Your task to perform on an android device: Search for the ikea sjalv lamp Image 0: 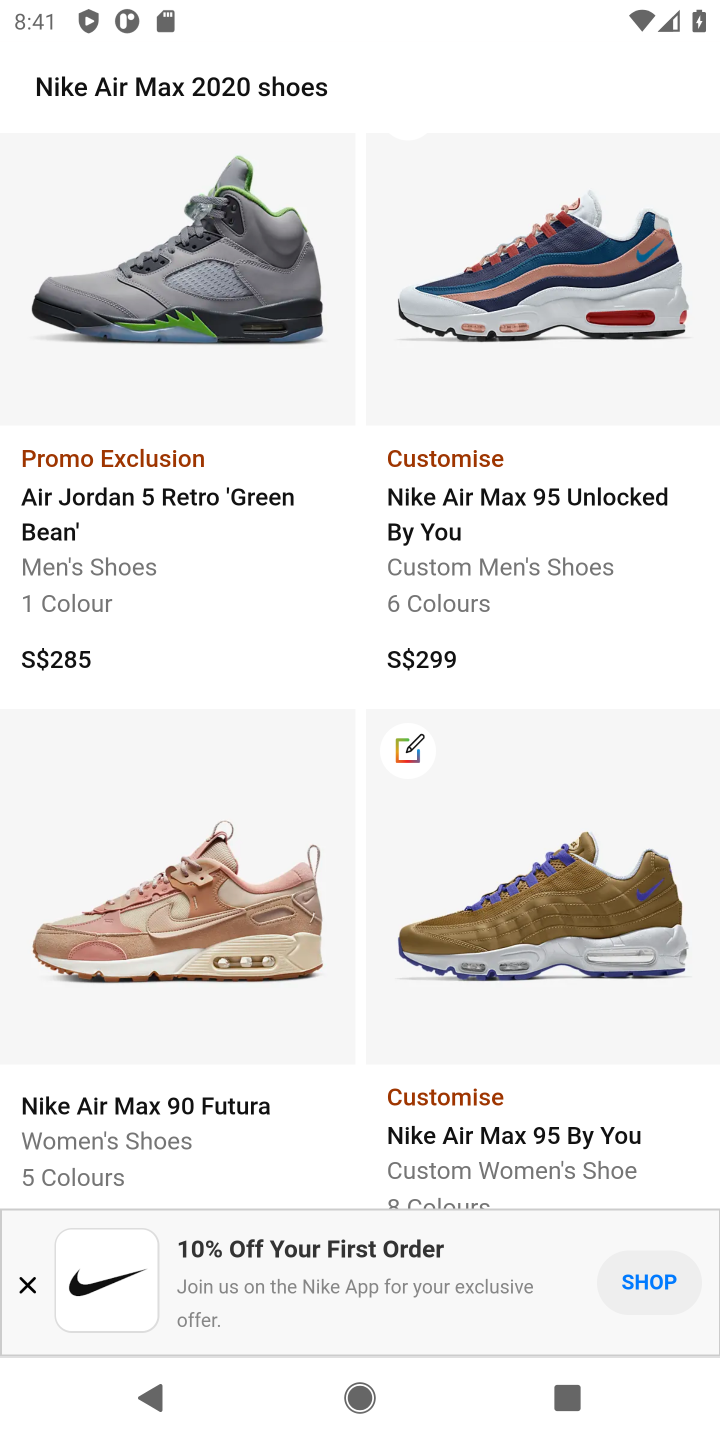
Step 0: press home button
Your task to perform on an android device: Search for the ikea sjalv lamp Image 1: 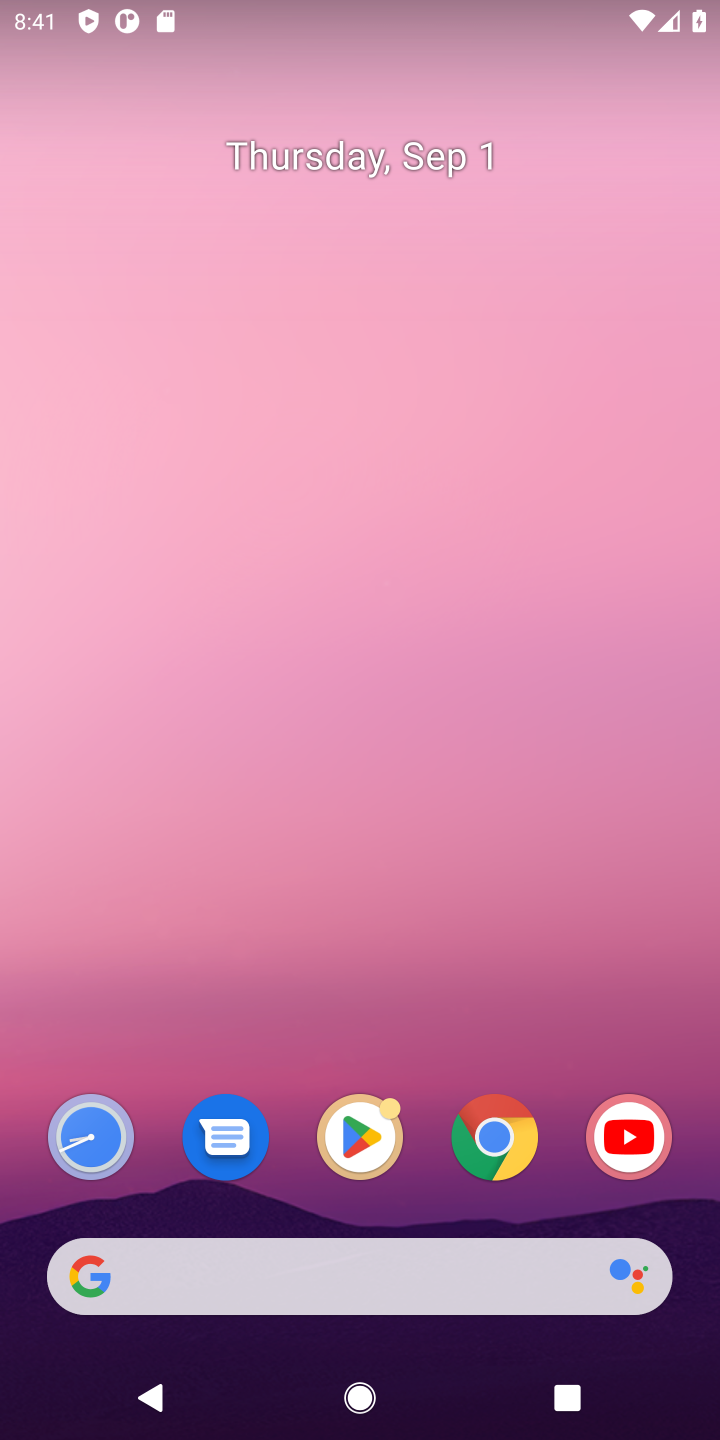
Step 1: drag from (416, 787) to (408, 17)
Your task to perform on an android device: Search for the ikea sjalv lamp Image 2: 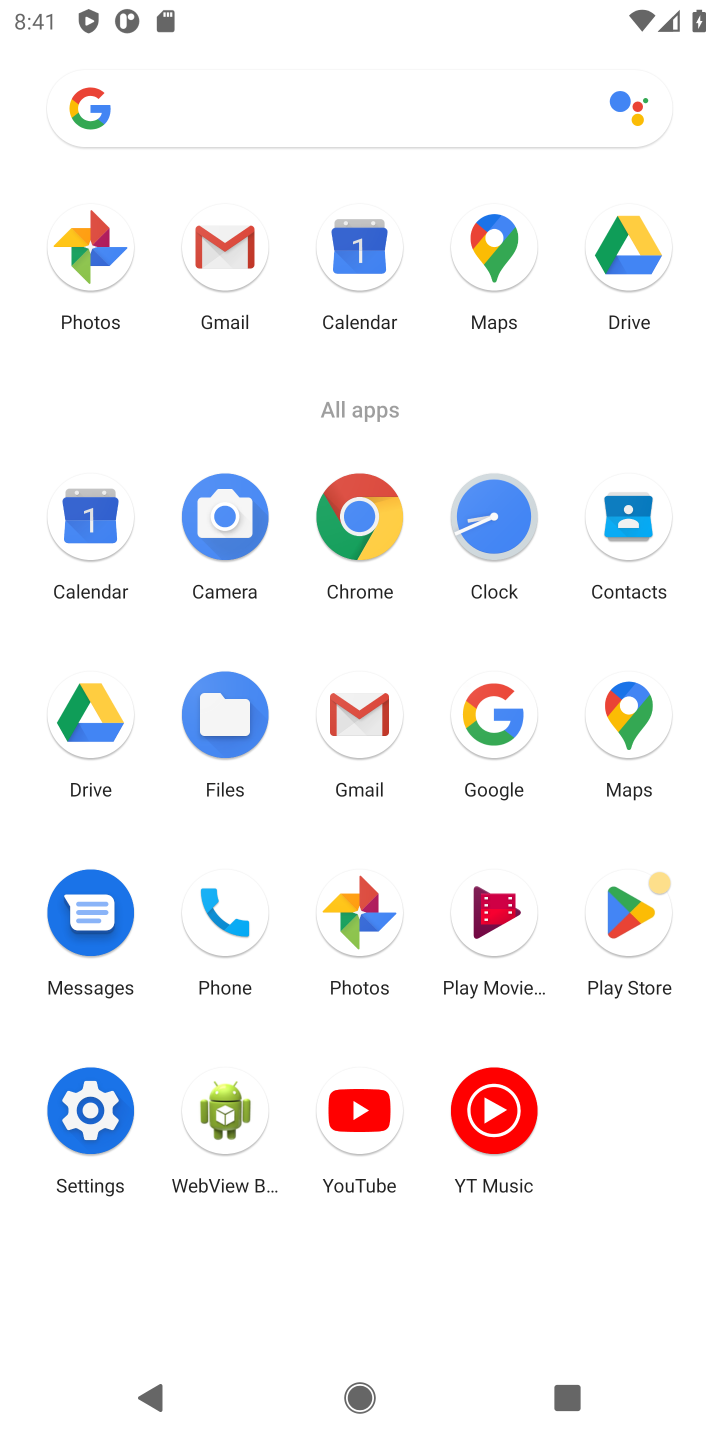
Step 2: click (363, 501)
Your task to perform on an android device: Search for the ikea sjalv lamp Image 3: 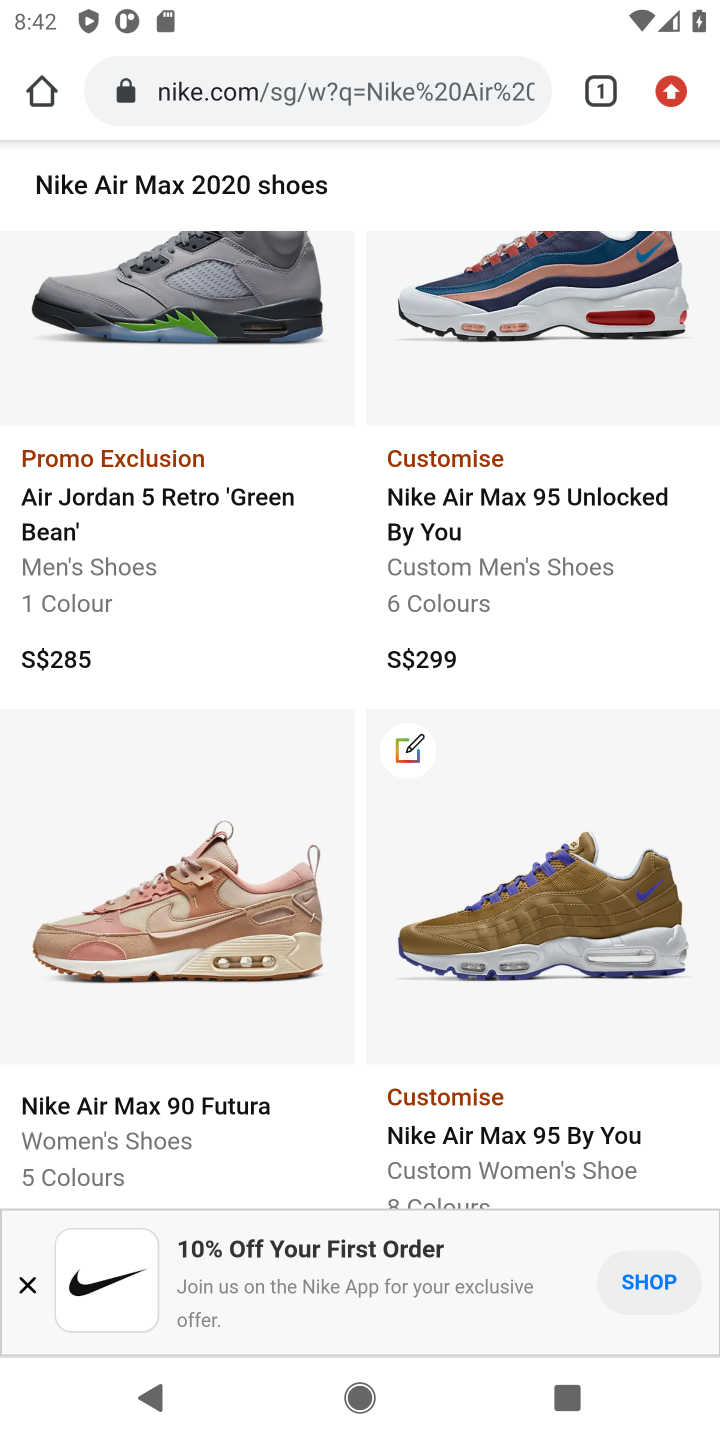
Step 3: click (599, 85)
Your task to perform on an android device: Search for the ikea sjalv lamp Image 4: 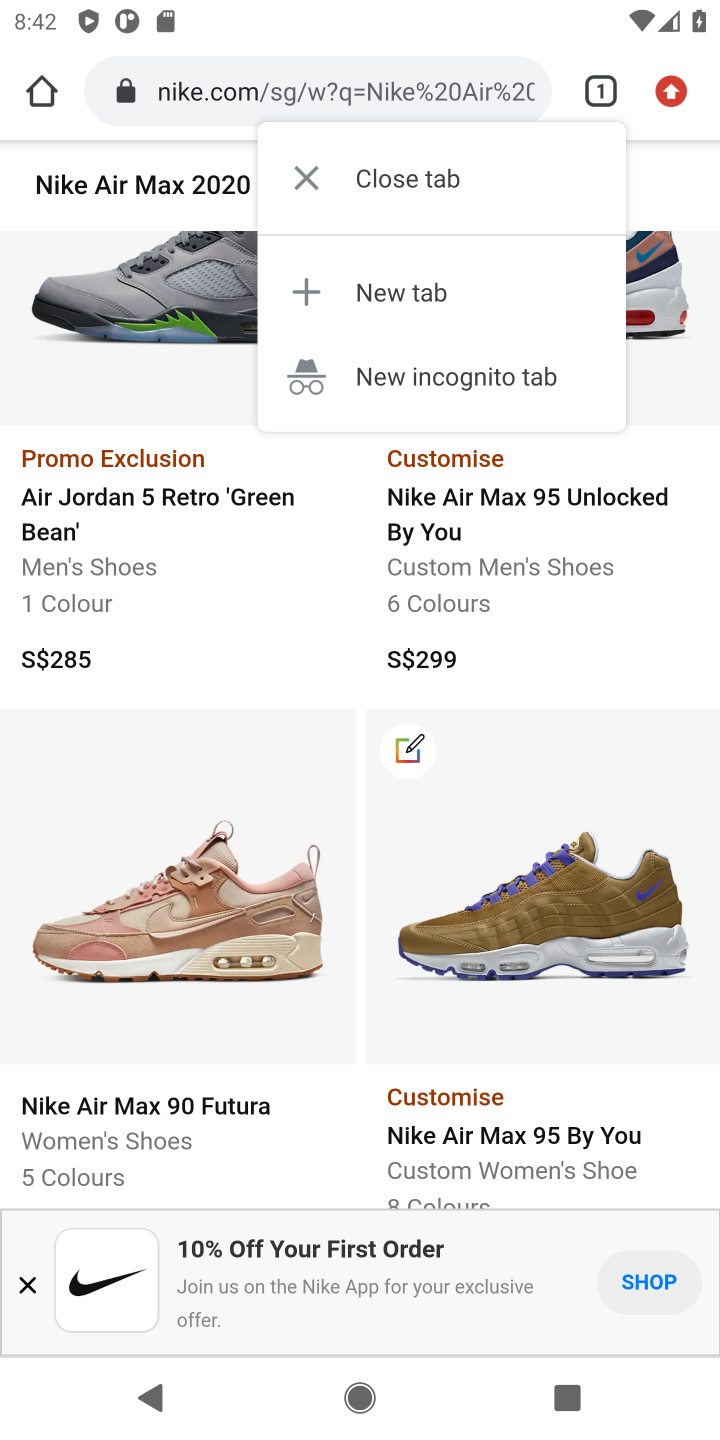
Step 4: click (309, 181)
Your task to perform on an android device: Search for the ikea sjalv lamp Image 5: 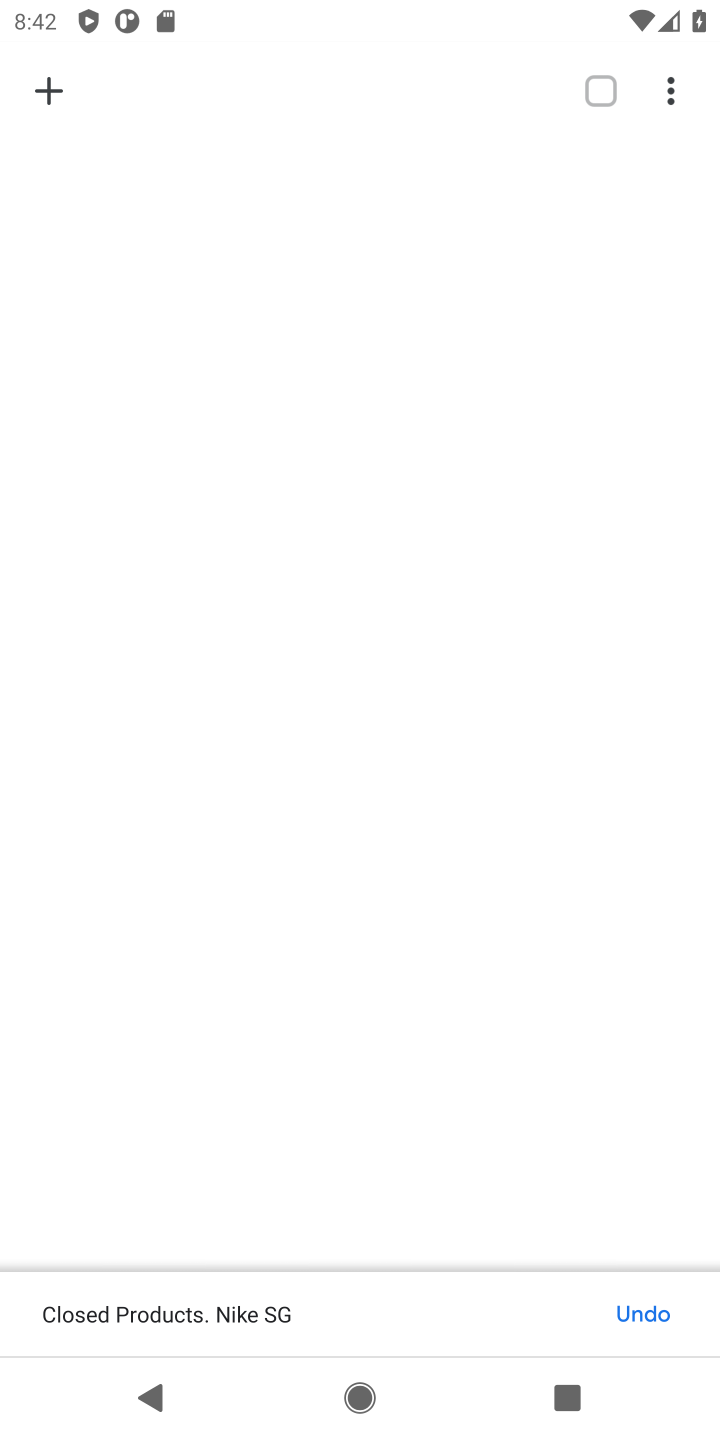
Step 5: click (59, 87)
Your task to perform on an android device: Search for the ikea sjalv lamp Image 6: 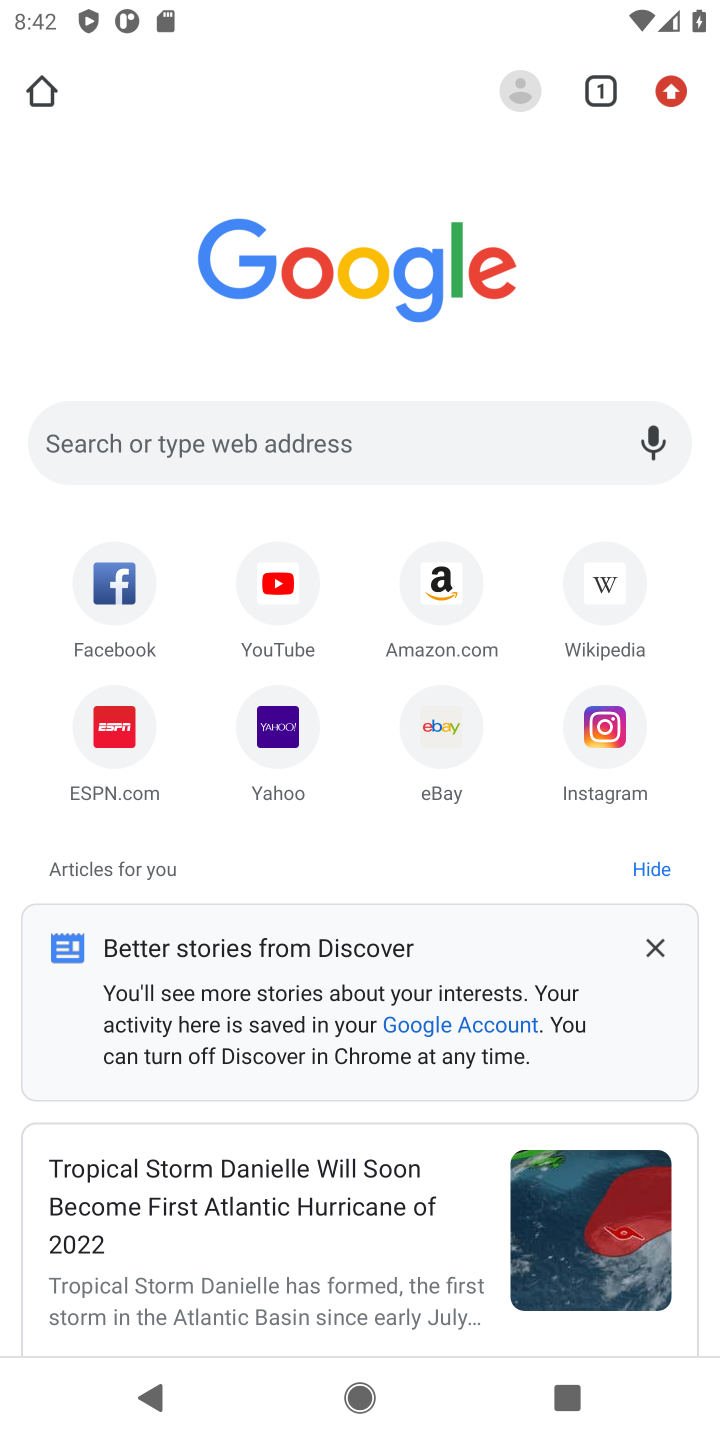
Step 6: type "ikea sjalv lamp"
Your task to perform on an android device: Search for the ikea sjalv lamp Image 7: 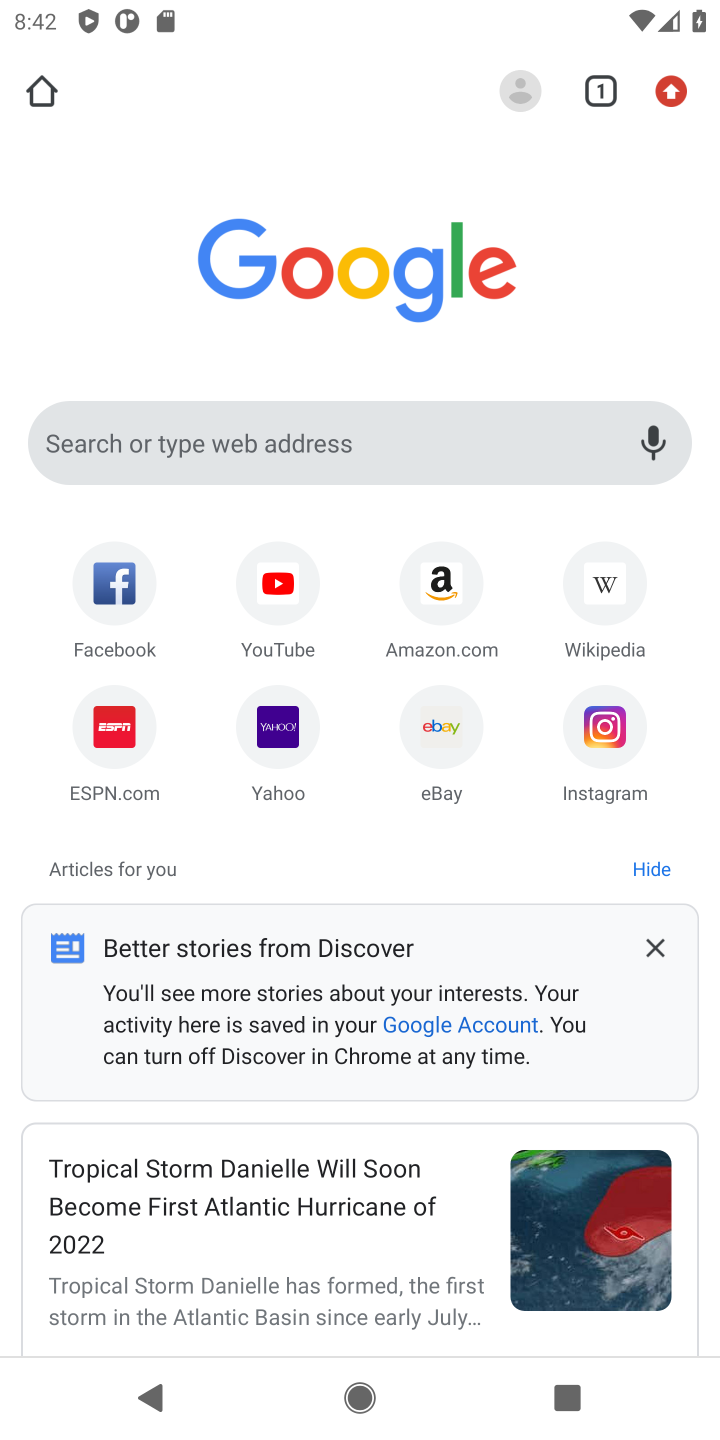
Step 7: click (182, 438)
Your task to perform on an android device: Search for the ikea sjalv lamp Image 8: 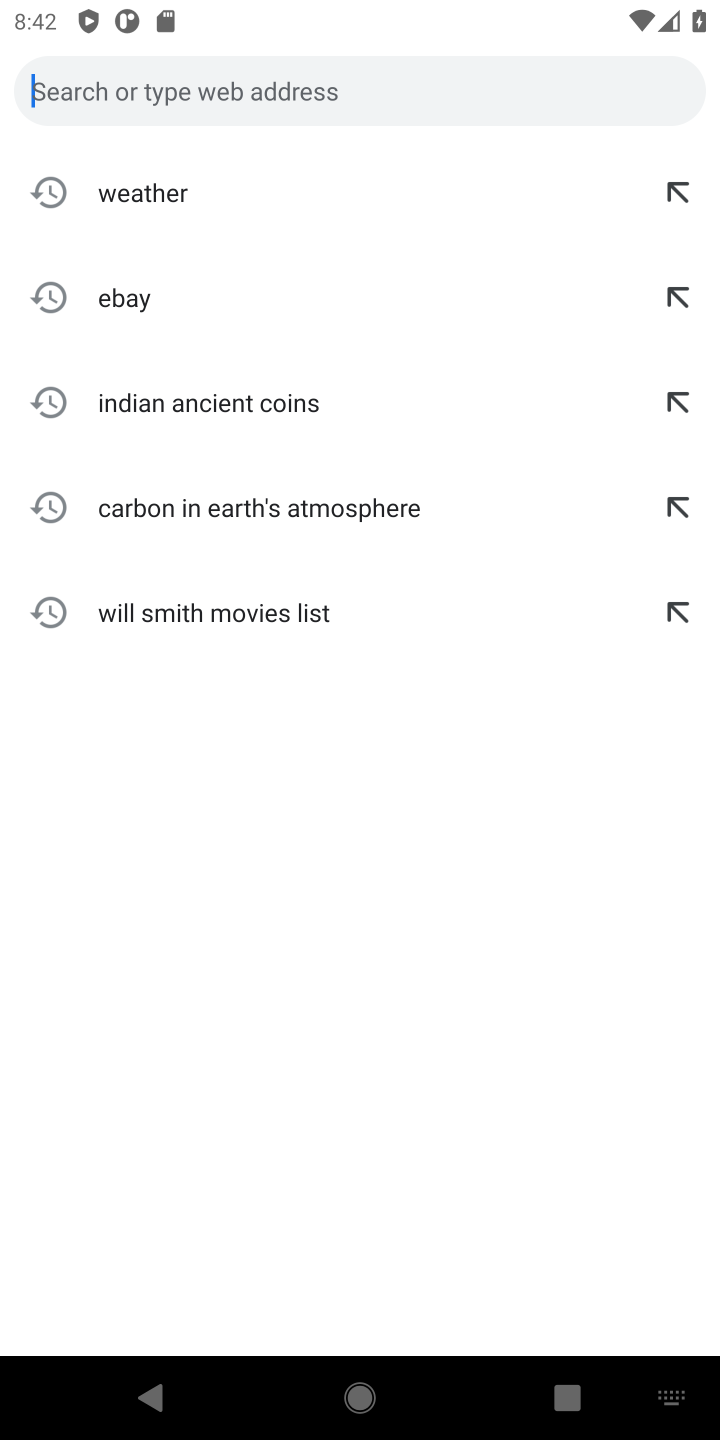
Step 8: type "ikea sjalv lamp"
Your task to perform on an android device: Search for the ikea sjalv lamp Image 9: 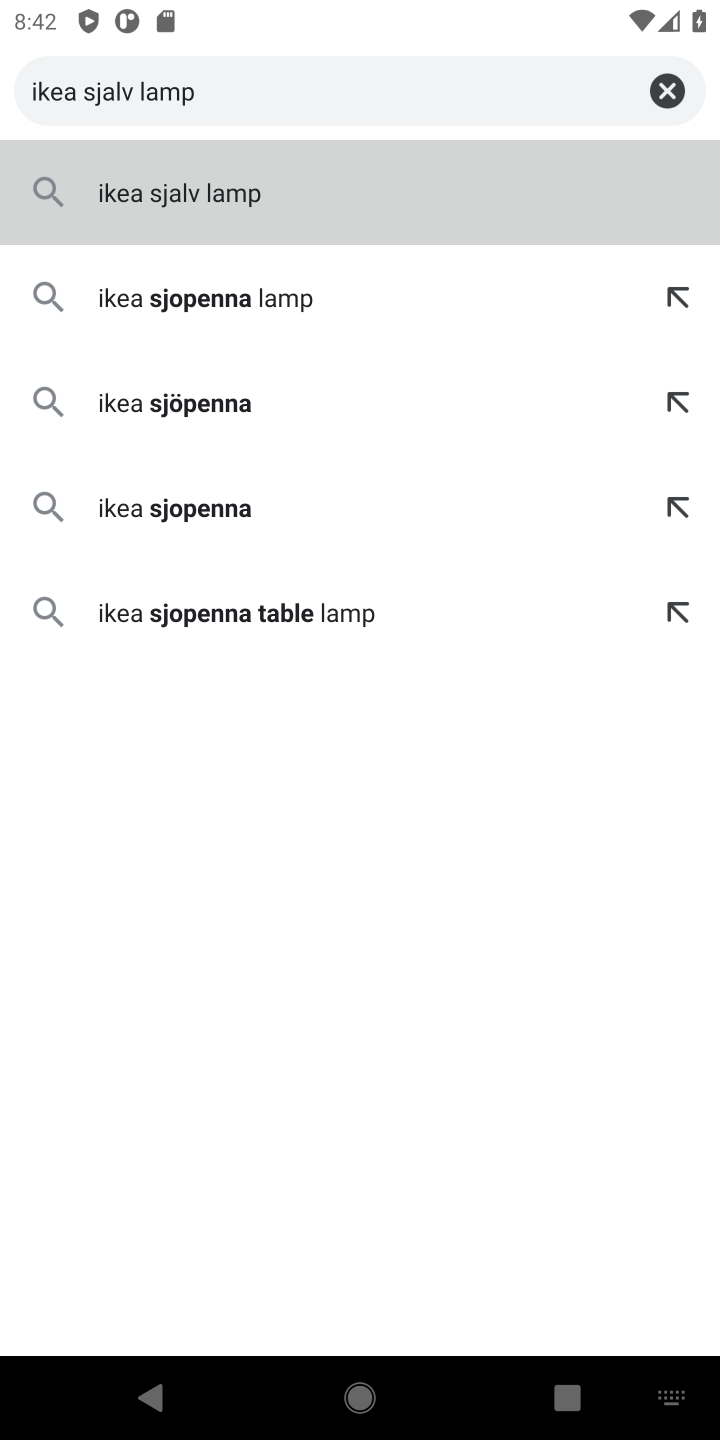
Step 9: click (217, 186)
Your task to perform on an android device: Search for the ikea sjalv lamp Image 10: 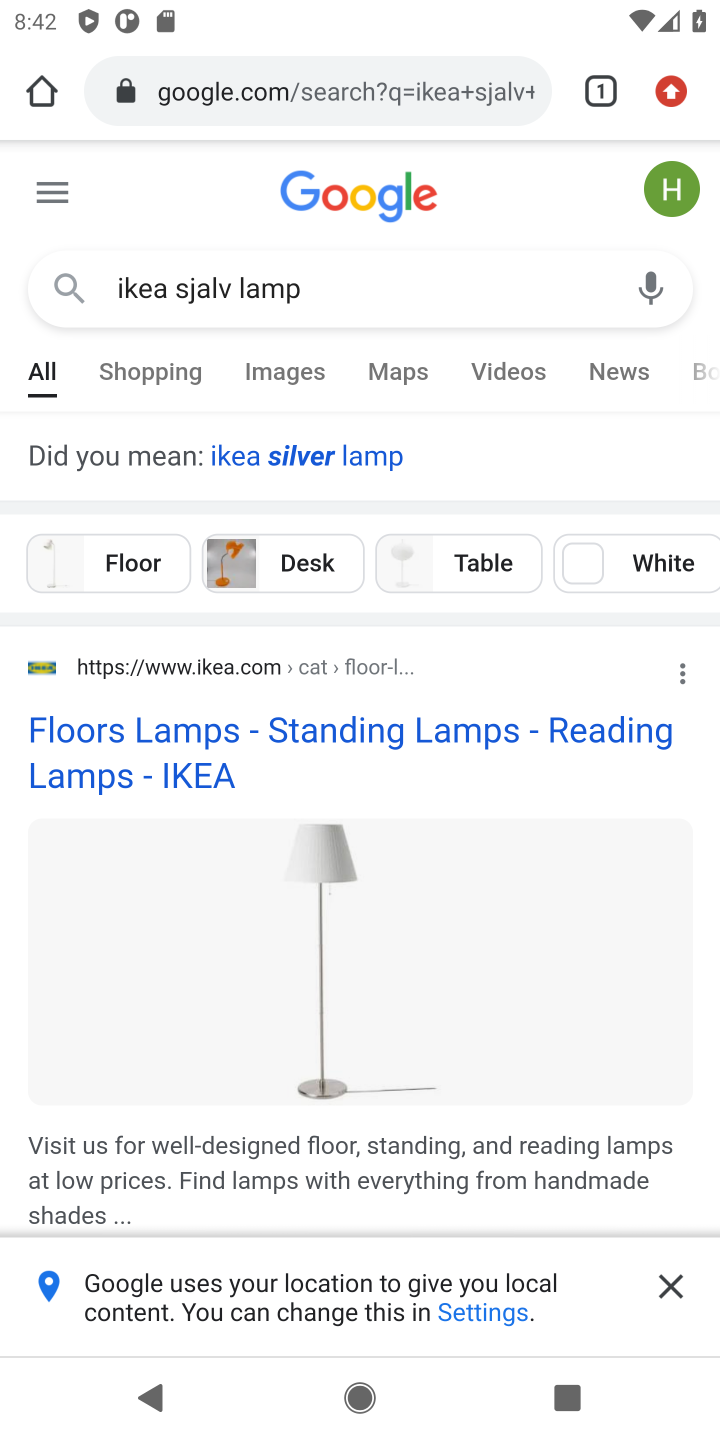
Step 10: drag from (299, 1173) to (268, 683)
Your task to perform on an android device: Search for the ikea sjalv lamp Image 11: 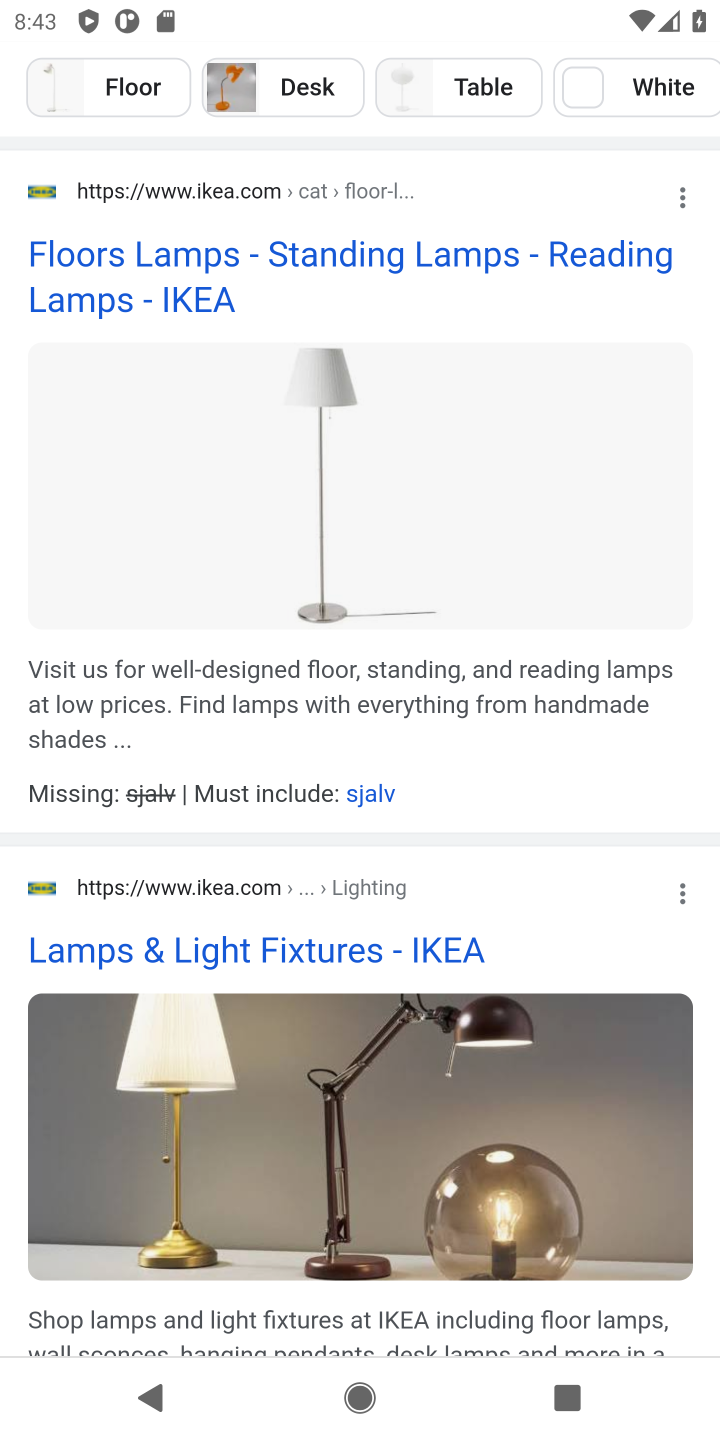
Step 11: drag from (370, 1044) to (318, 463)
Your task to perform on an android device: Search for the ikea sjalv lamp Image 12: 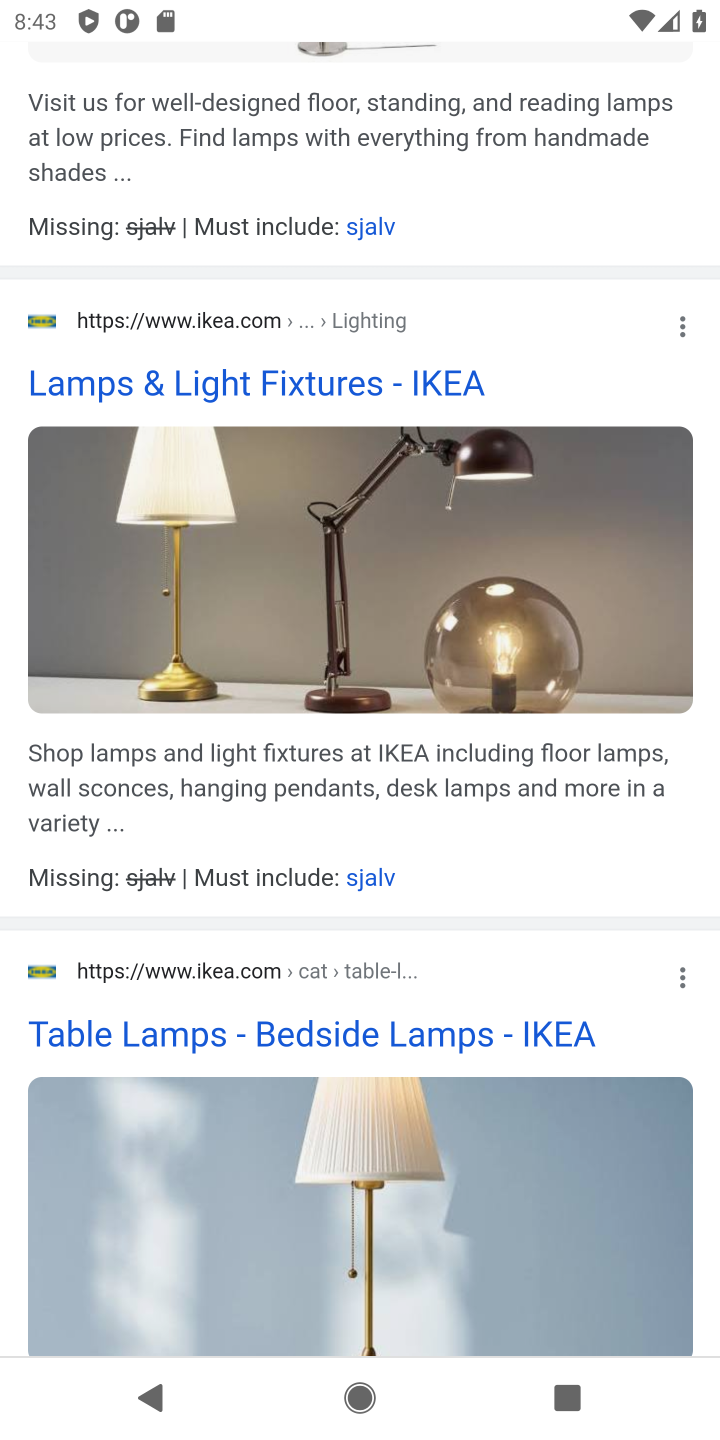
Step 12: drag from (179, 575) to (272, 1069)
Your task to perform on an android device: Search for the ikea sjalv lamp Image 13: 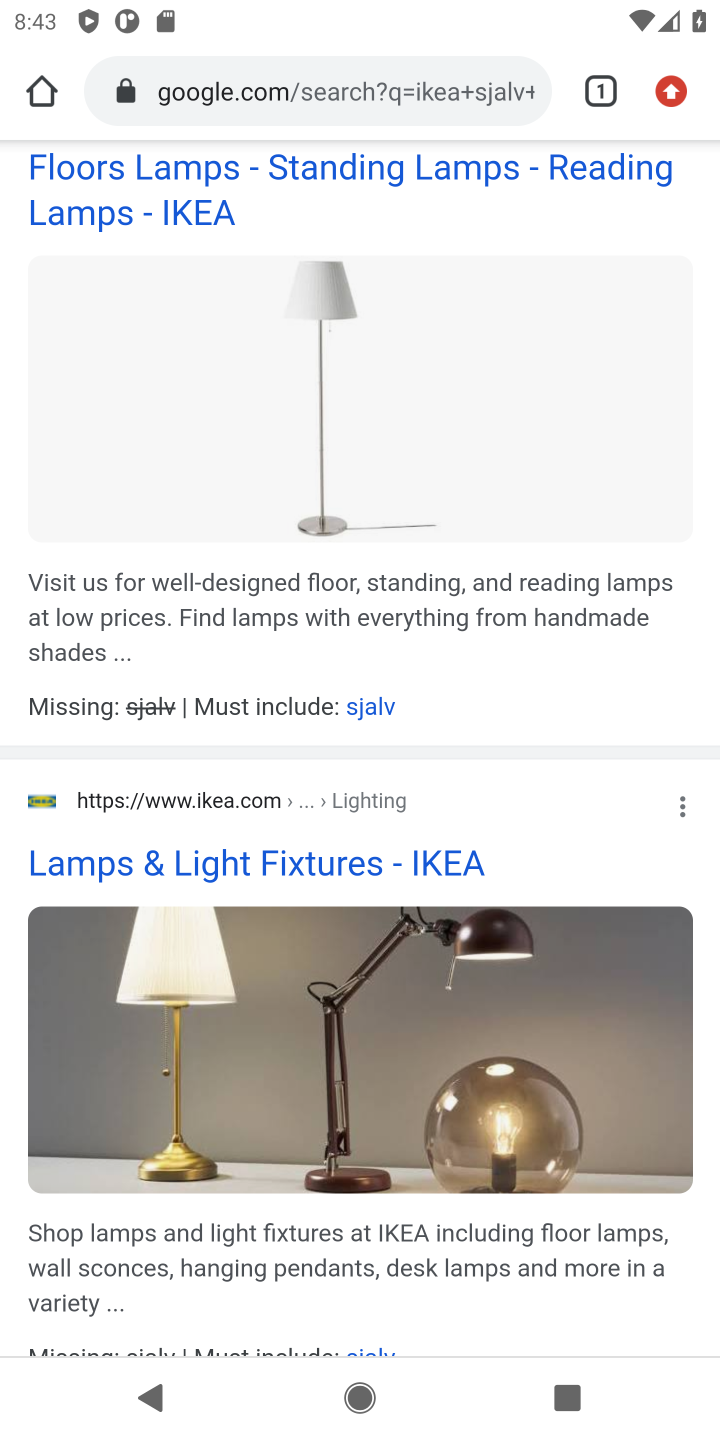
Step 13: drag from (353, 611) to (481, 1148)
Your task to perform on an android device: Search for the ikea sjalv lamp Image 14: 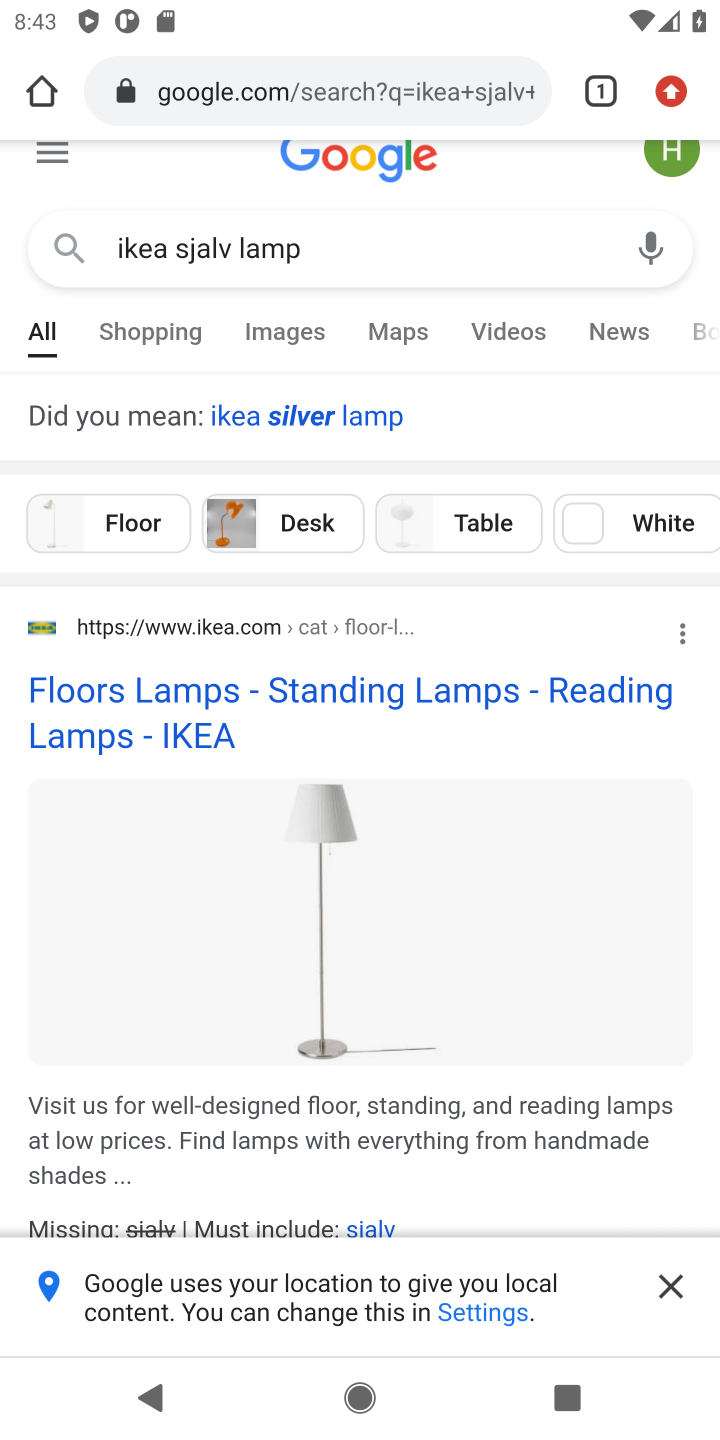
Step 14: click (153, 738)
Your task to perform on an android device: Search for the ikea sjalv lamp Image 15: 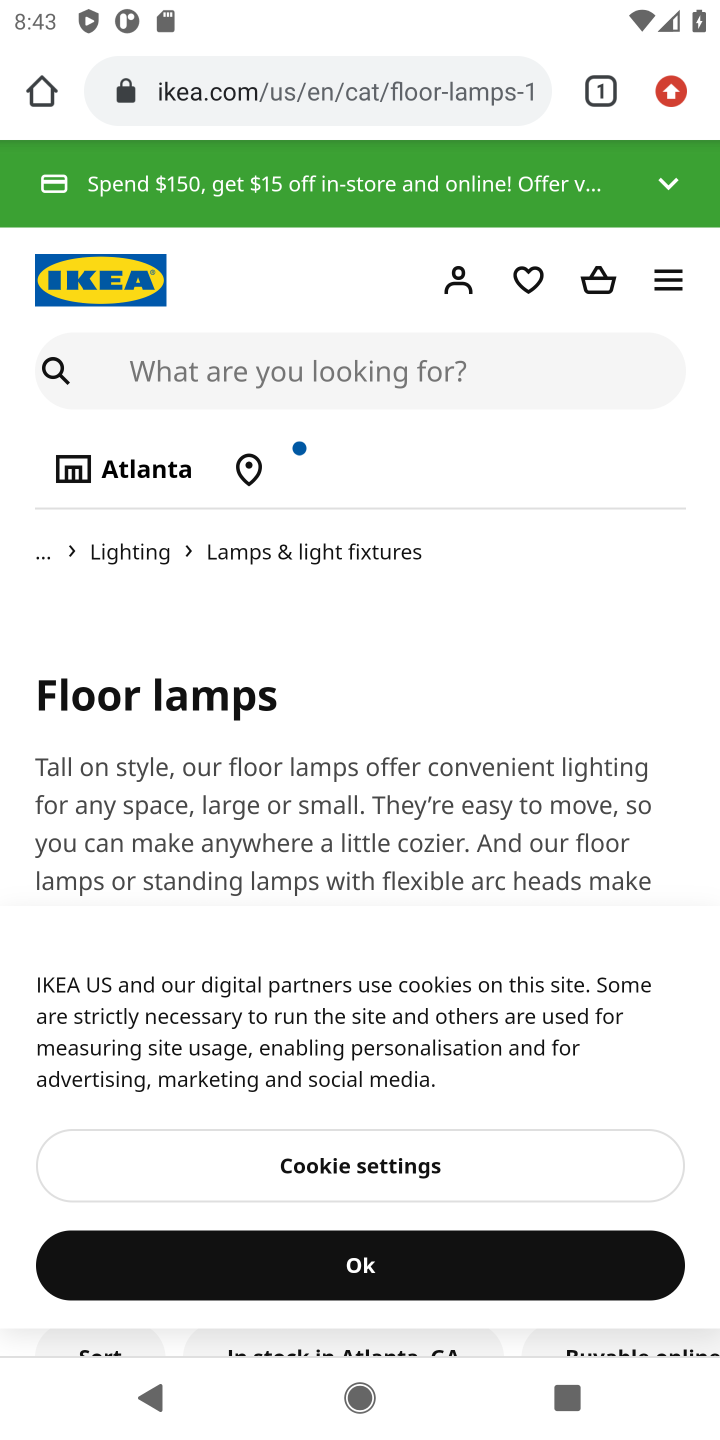
Step 15: click (373, 373)
Your task to perform on an android device: Search for the ikea sjalv lamp Image 16: 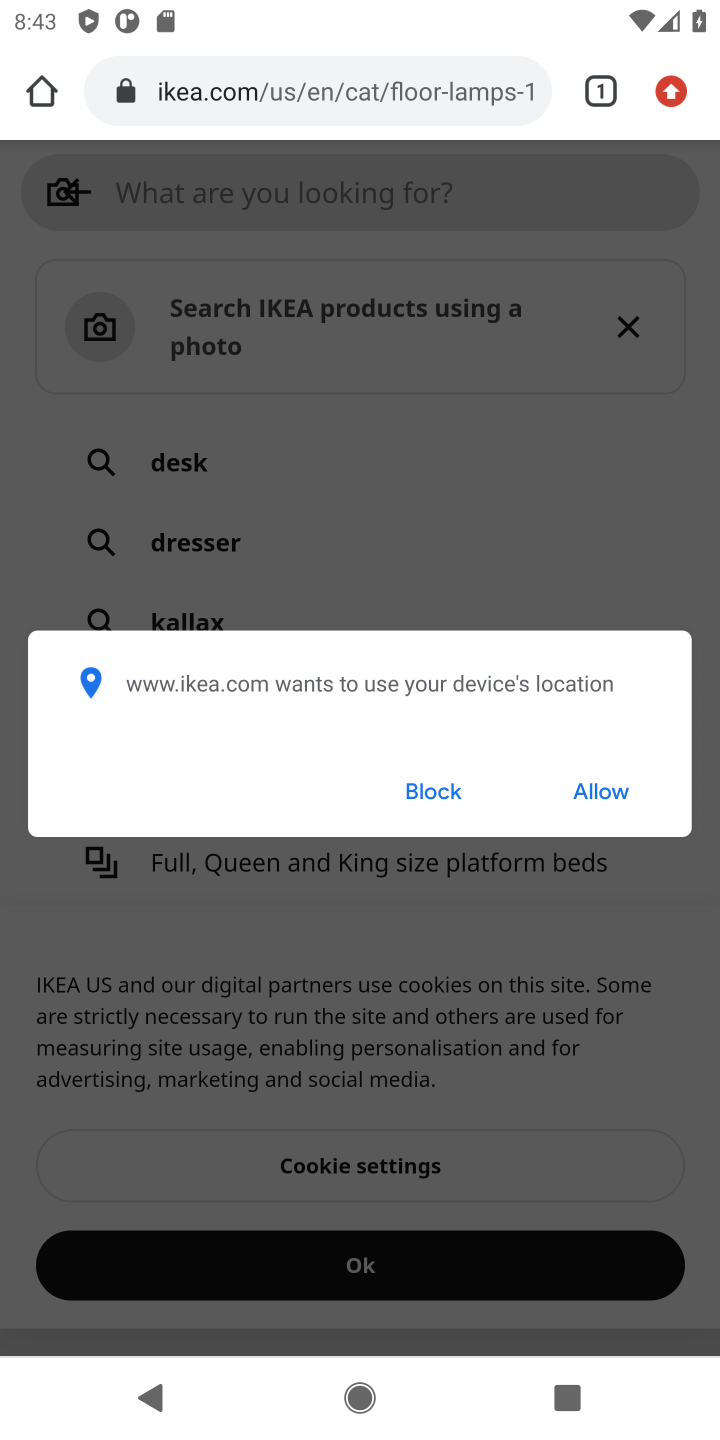
Step 16: click (440, 799)
Your task to perform on an android device: Search for the ikea sjalv lamp Image 17: 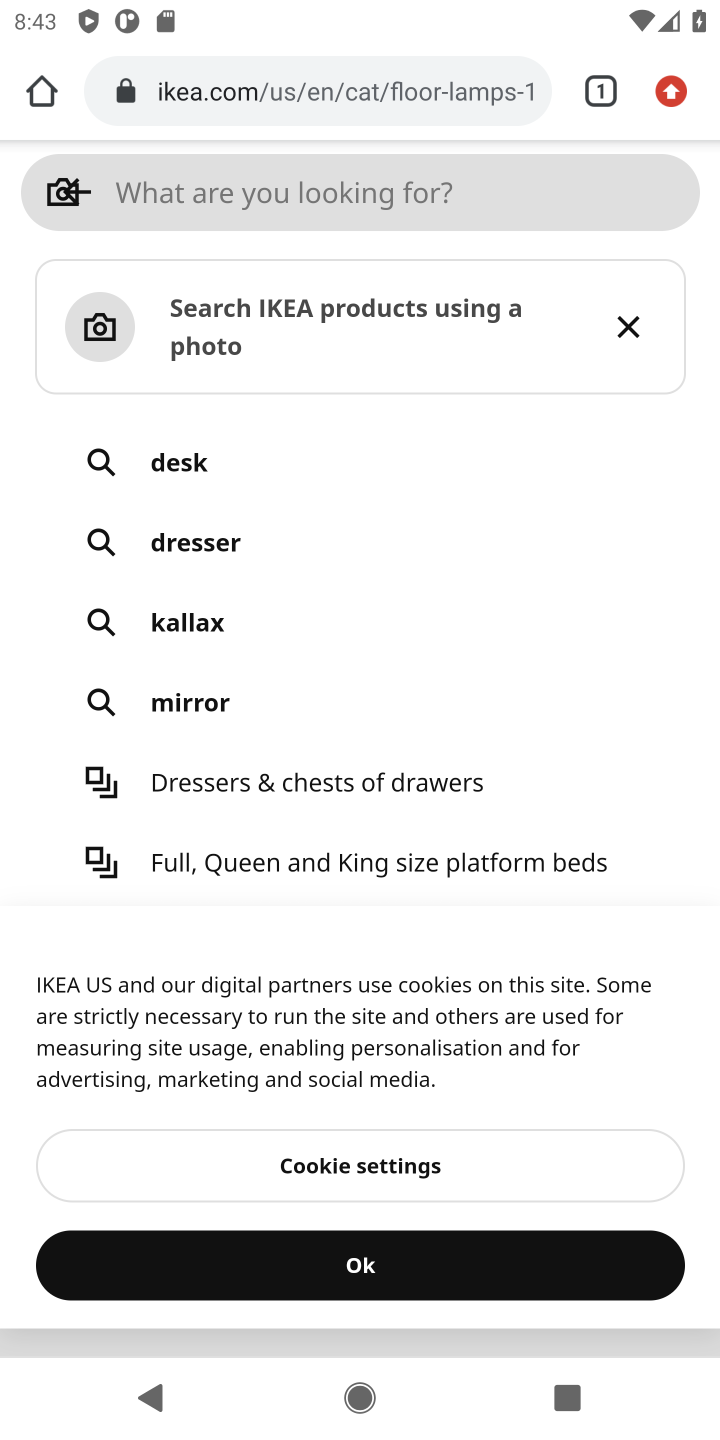
Step 17: click (212, 170)
Your task to perform on an android device: Search for the ikea sjalv lamp Image 18: 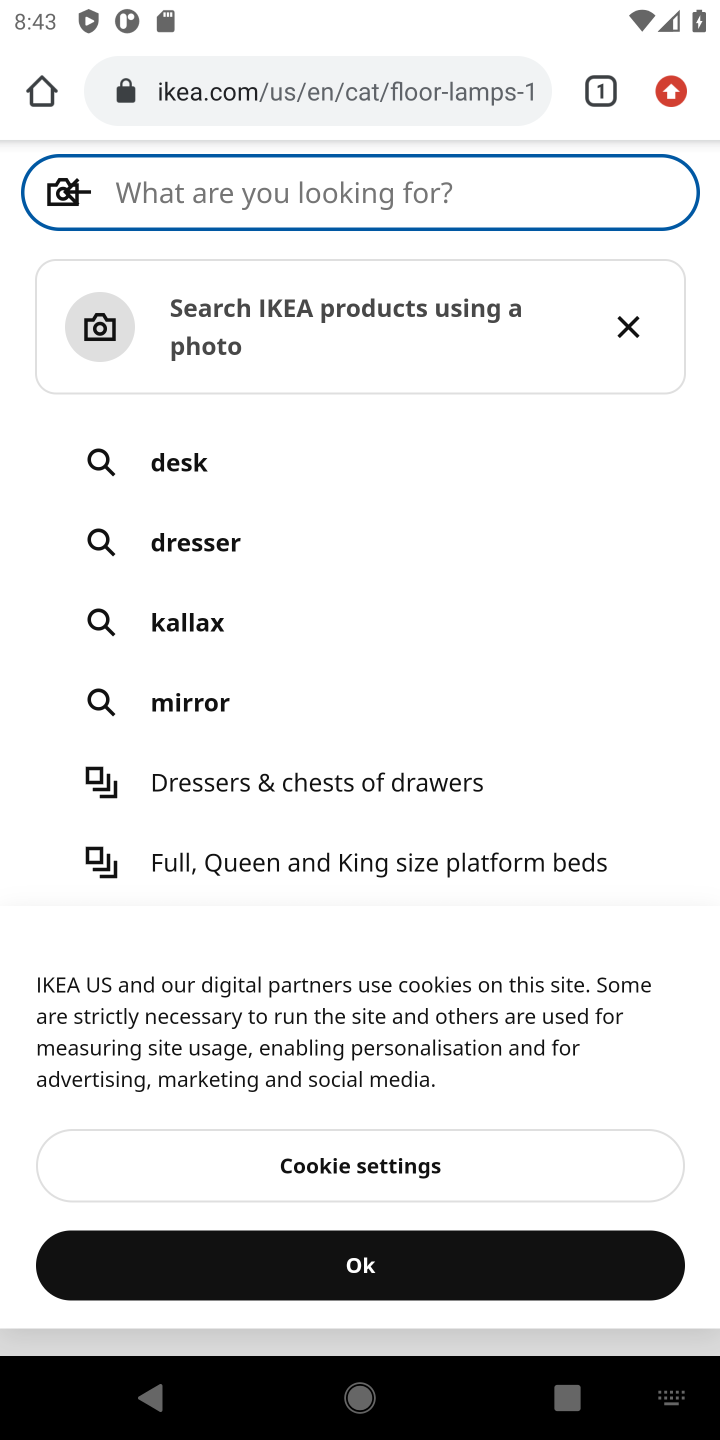
Step 18: type "sjalv lamp"
Your task to perform on an android device: Search for the ikea sjalv lamp Image 19: 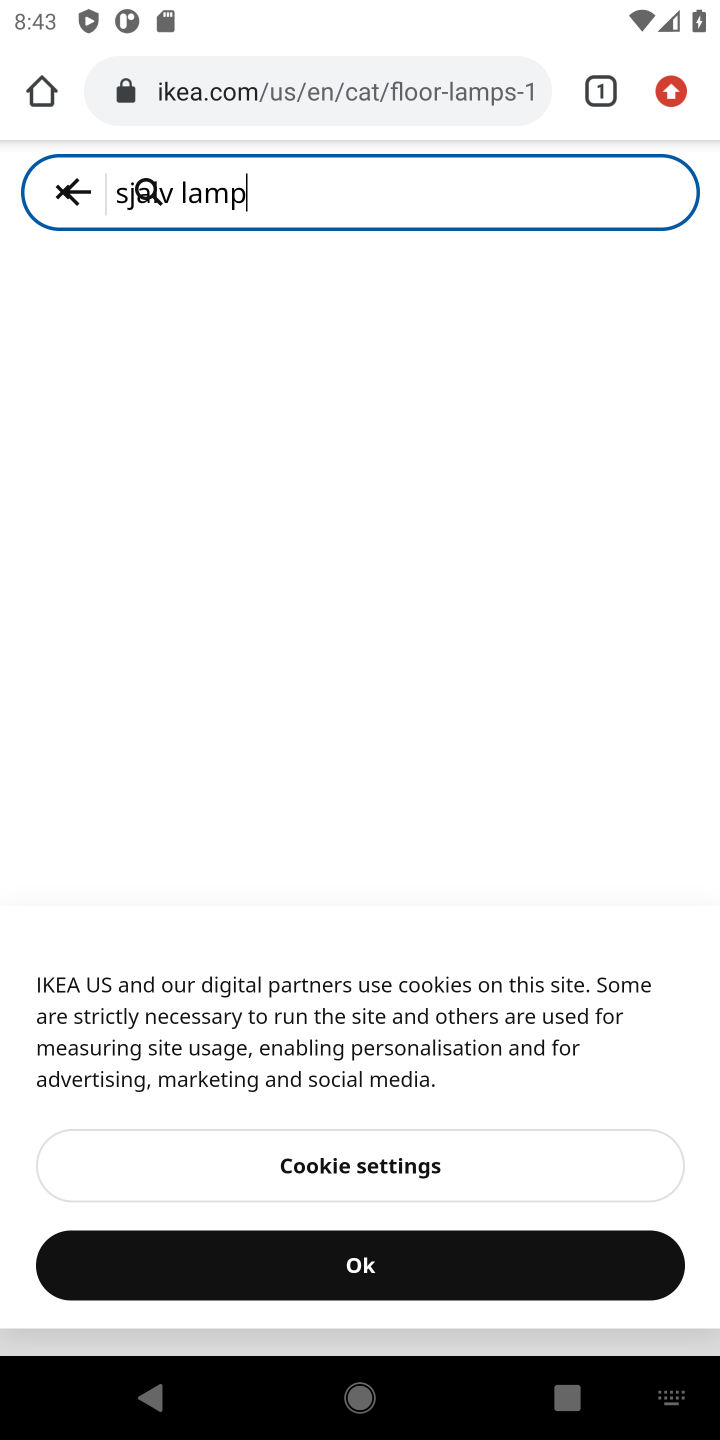
Step 19: click (142, 195)
Your task to perform on an android device: Search for the ikea sjalv lamp Image 20: 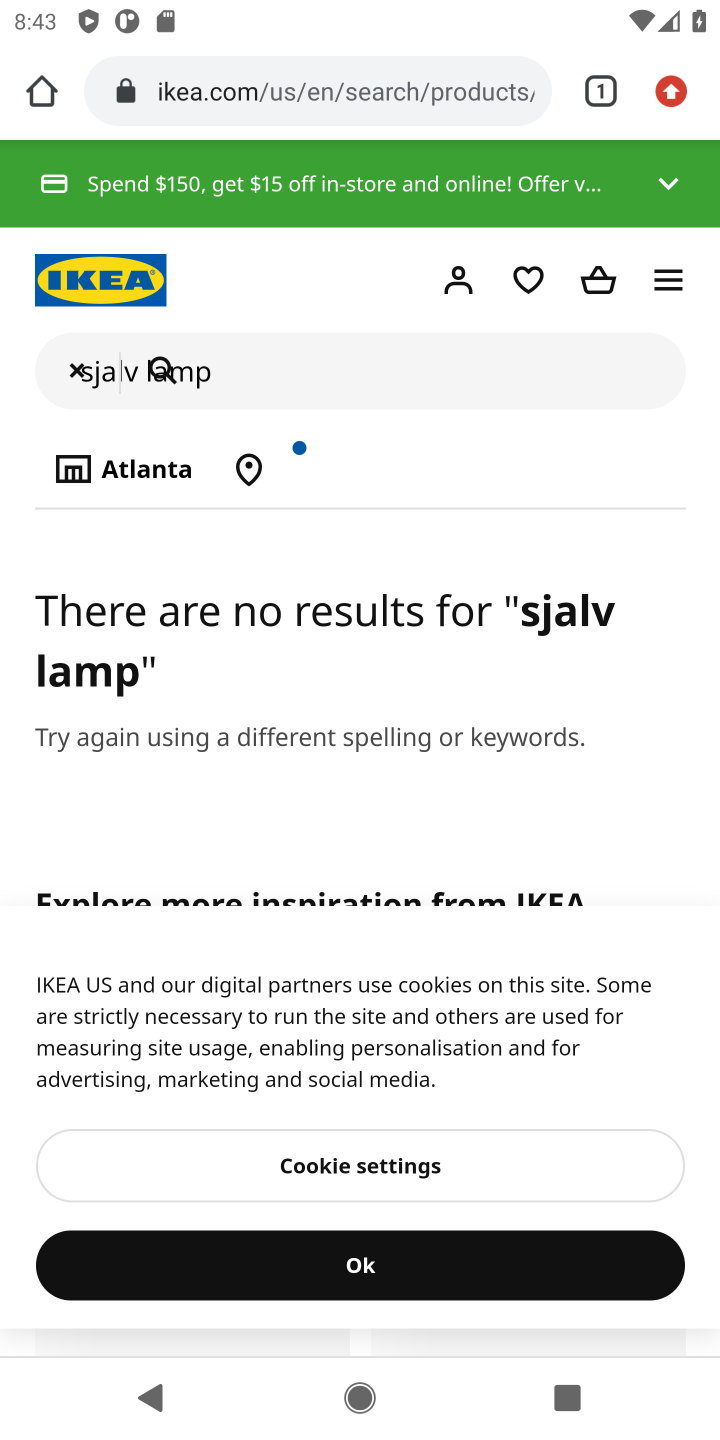
Step 20: task complete